Your task to perform on an android device: turn on showing notifications on the lock screen Image 0: 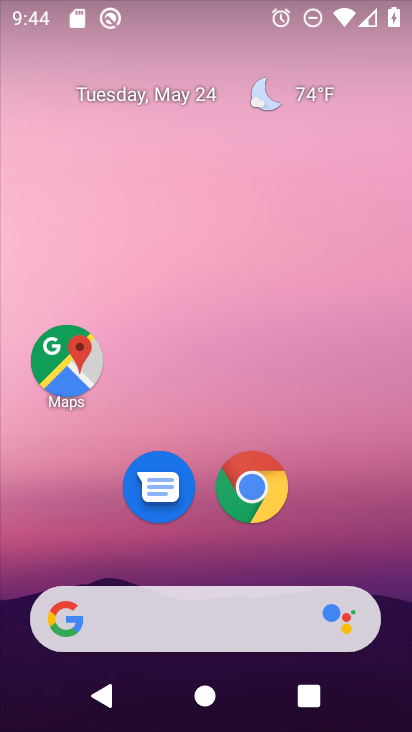
Step 0: drag from (379, 576) to (380, 7)
Your task to perform on an android device: turn on showing notifications on the lock screen Image 1: 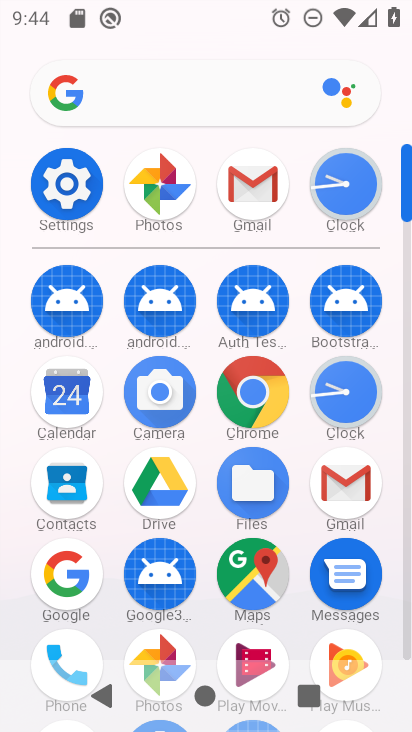
Step 1: click (75, 183)
Your task to perform on an android device: turn on showing notifications on the lock screen Image 2: 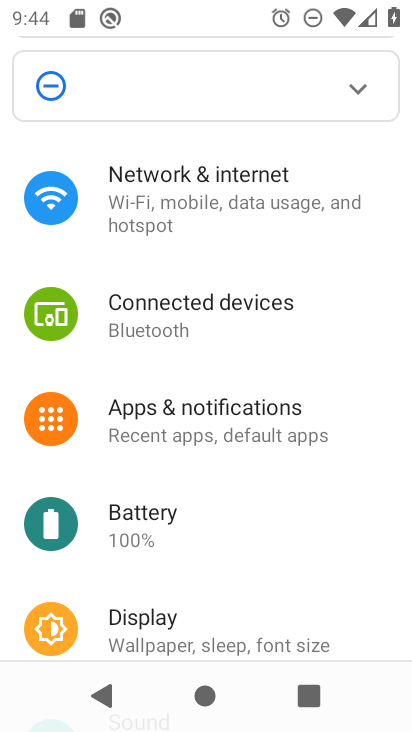
Step 2: click (197, 423)
Your task to perform on an android device: turn on showing notifications on the lock screen Image 3: 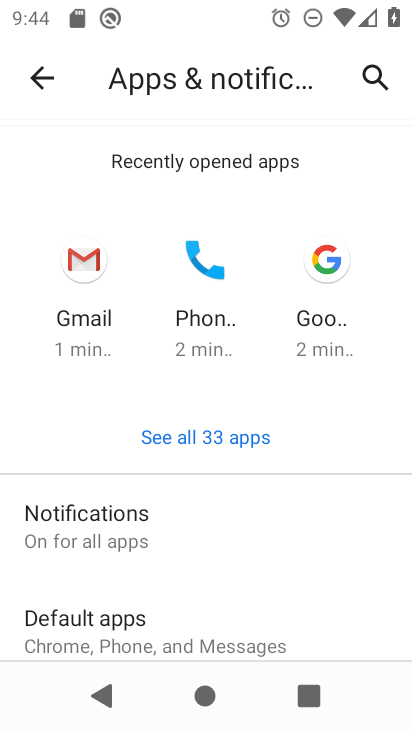
Step 3: click (78, 535)
Your task to perform on an android device: turn on showing notifications on the lock screen Image 4: 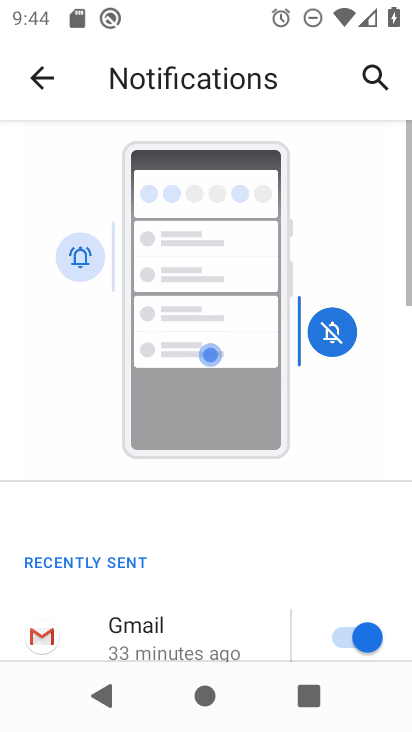
Step 4: drag from (203, 583) to (201, 41)
Your task to perform on an android device: turn on showing notifications on the lock screen Image 5: 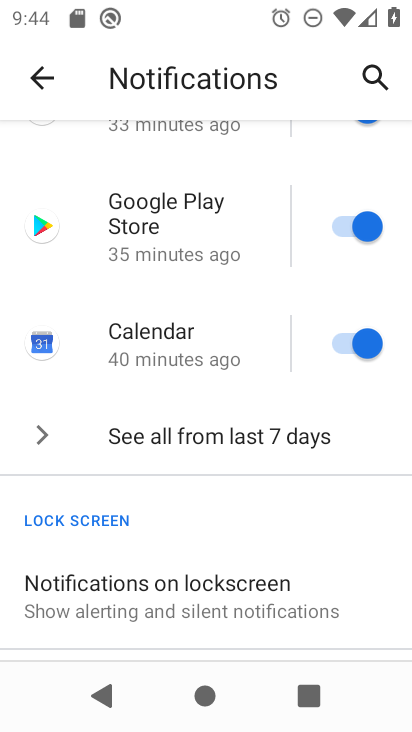
Step 5: drag from (220, 494) to (199, 110)
Your task to perform on an android device: turn on showing notifications on the lock screen Image 6: 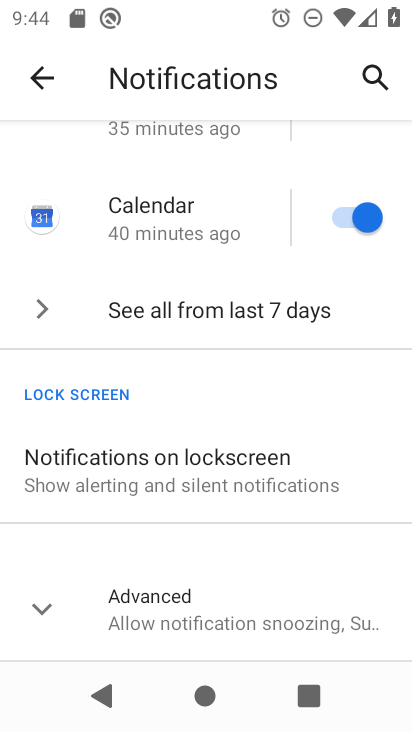
Step 6: click (129, 468)
Your task to perform on an android device: turn on showing notifications on the lock screen Image 7: 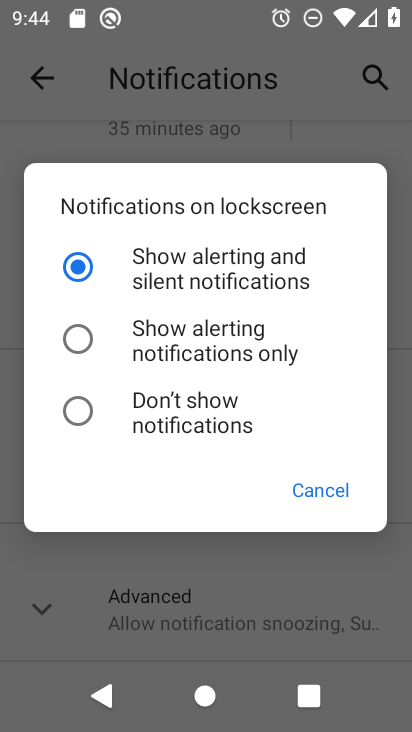
Step 7: task complete